Your task to perform on an android device: turn off notifications settings in the gmail app Image 0: 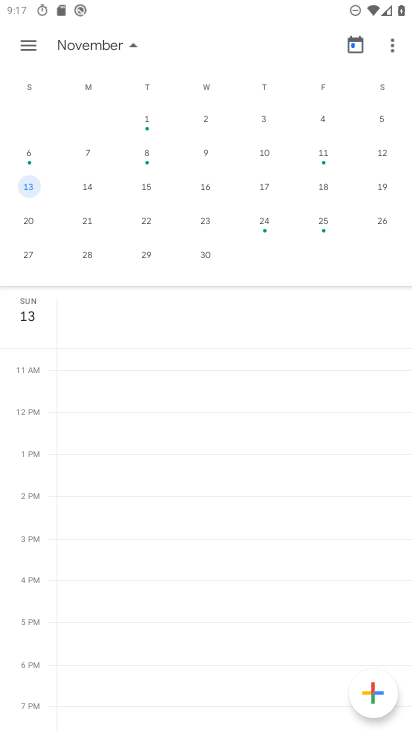
Step 0: press home button
Your task to perform on an android device: turn off notifications settings in the gmail app Image 1: 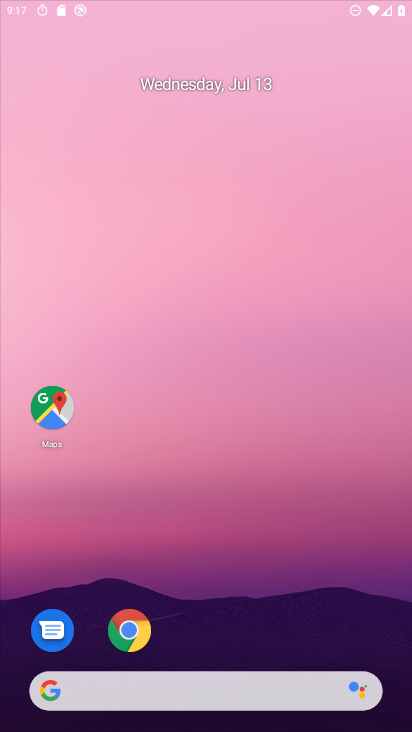
Step 1: drag from (399, 707) to (293, 48)
Your task to perform on an android device: turn off notifications settings in the gmail app Image 2: 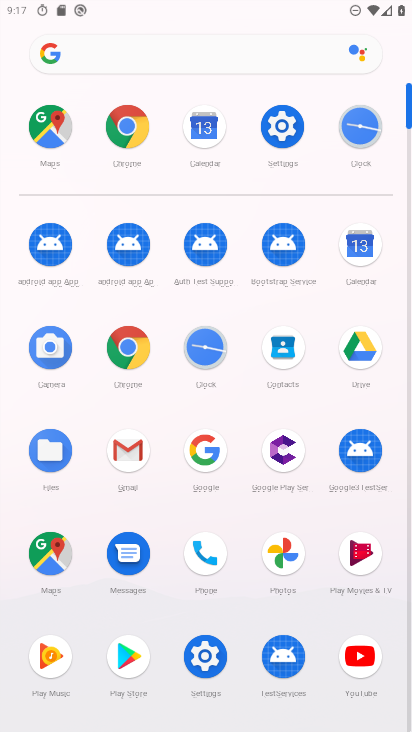
Step 2: click (129, 451)
Your task to perform on an android device: turn off notifications settings in the gmail app Image 3: 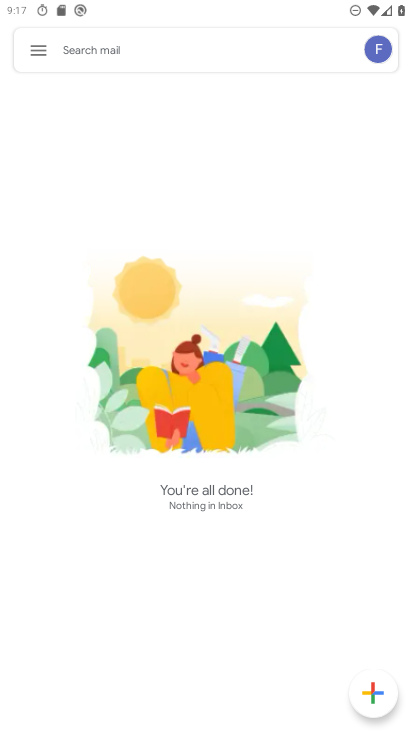
Step 3: click (27, 51)
Your task to perform on an android device: turn off notifications settings in the gmail app Image 4: 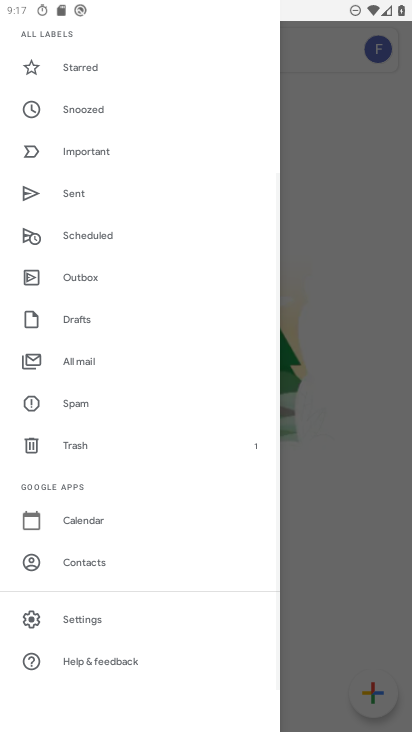
Step 4: click (87, 624)
Your task to perform on an android device: turn off notifications settings in the gmail app Image 5: 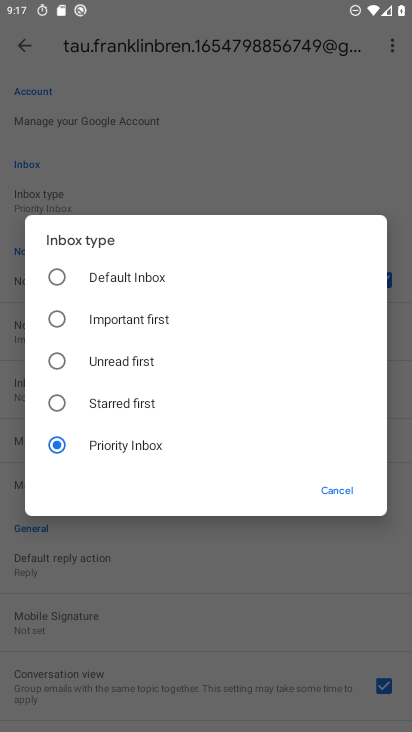
Step 5: click (327, 487)
Your task to perform on an android device: turn off notifications settings in the gmail app Image 6: 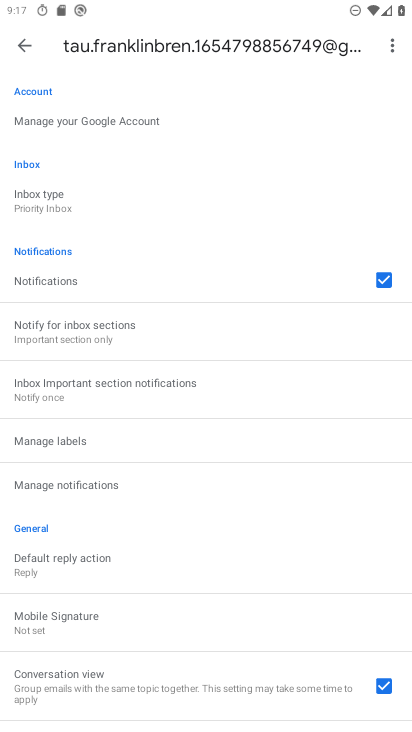
Step 6: click (70, 264)
Your task to perform on an android device: turn off notifications settings in the gmail app Image 7: 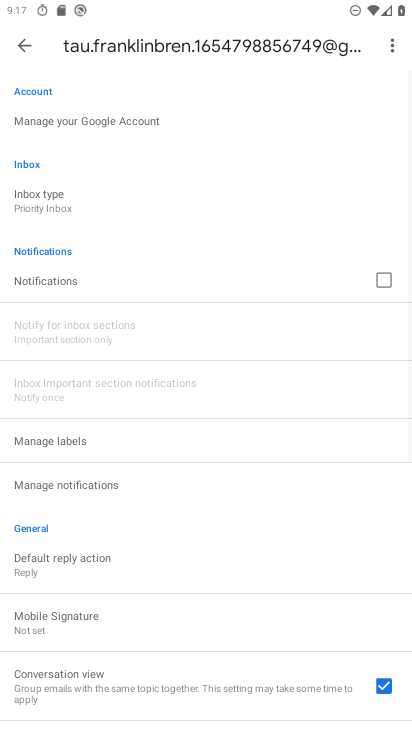
Step 7: task complete